Your task to perform on an android device: Open the calendar app, open the side menu, and click the "Day" option Image 0: 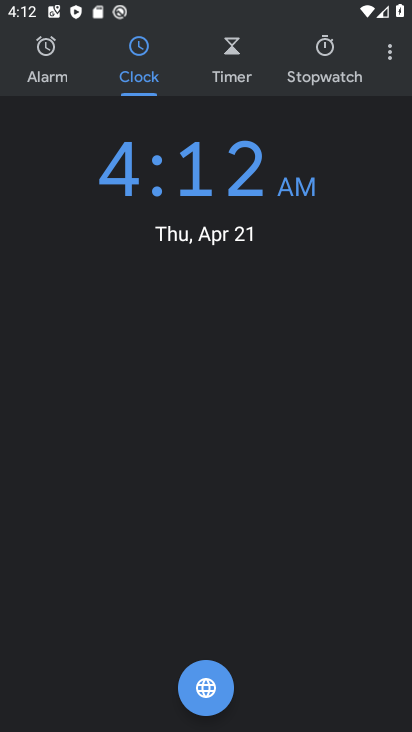
Step 0: press back button
Your task to perform on an android device: Open the calendar app, open the side menu, and click the "Day" option Image 1: 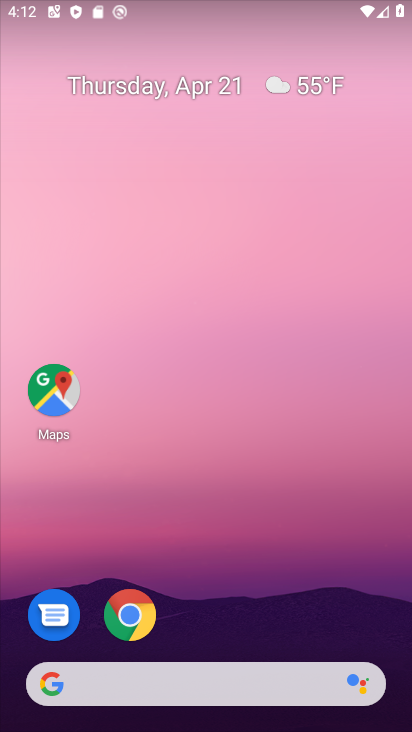
Step 1: drag from (260, 549) to (191, 3)
Your task to perform on an android device: Open the calendar app, open the side menu, and click the "Day" option Image 2: 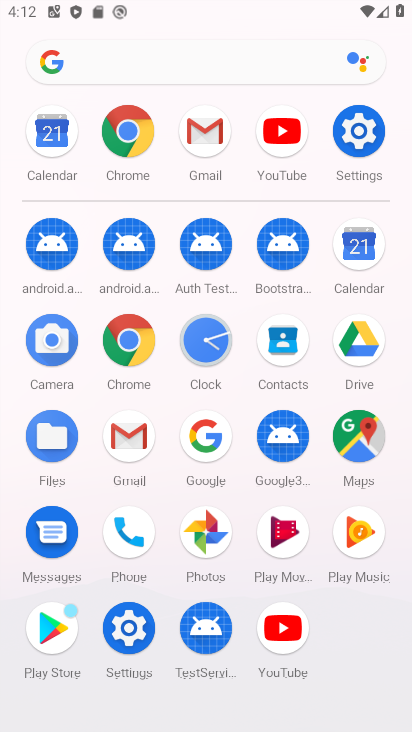
Step 2: click (50, 124)
Your task to perform on an android device: Open the calendar app, open the side menu, and click the "Day" option Image 3: 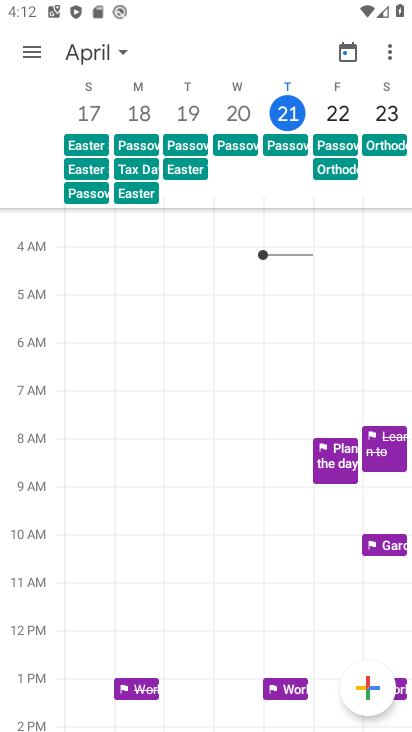
Step 3: click (30, 59)
Your task to perform on an android device: Open the calendar app, open the side menu, and click the "Day" option Image 4: 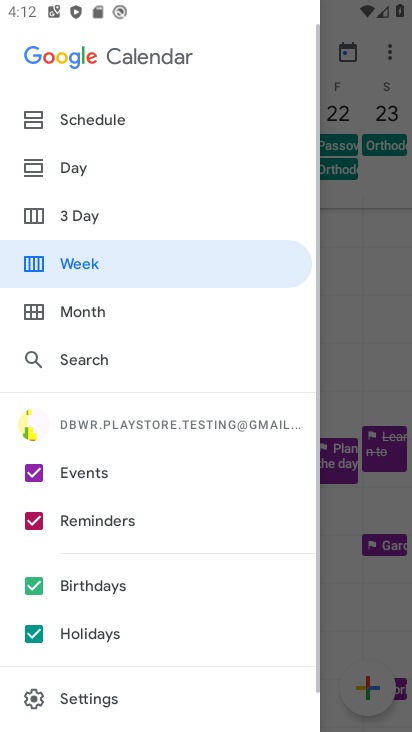
Step 4: click (73, 147)
Your task to perform on an android device: Open the calendar app, open the side menu, and click the "Day" option Image 5: 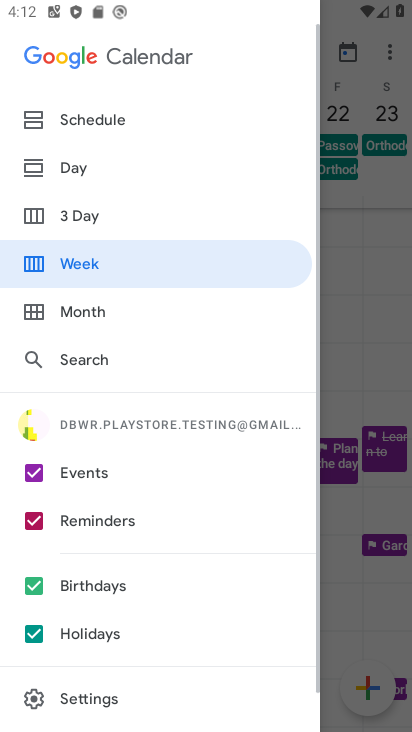
Step 5: click (75, 162)
Your task to perform on an android device: Open the calendar app, open the side menu, and click the "Day" option Image 6: 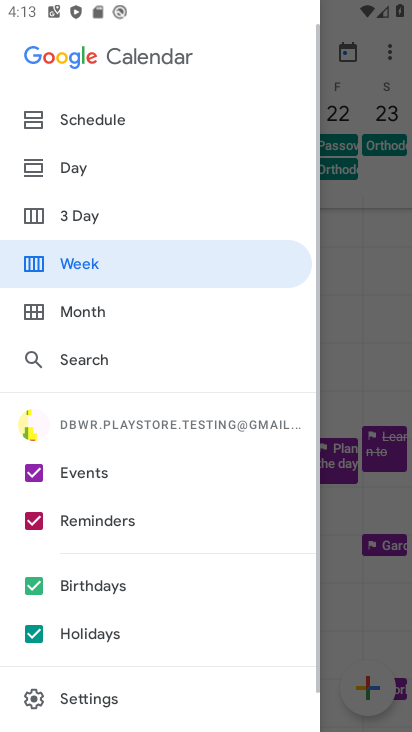
Step 6: click (75, 162)
Your task to perform on an android device: Open the calendar app, open the side menu, and click the "Day" option Image 7: 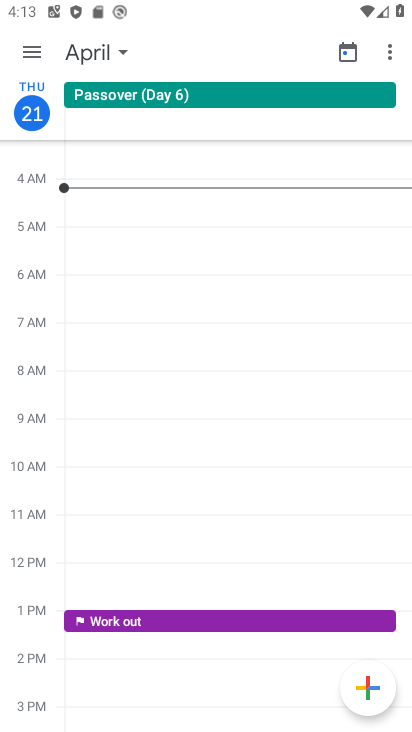
Step 7: task complete